Your task to perform on an android device: Open calendar and show me the third week of next month Image 0: 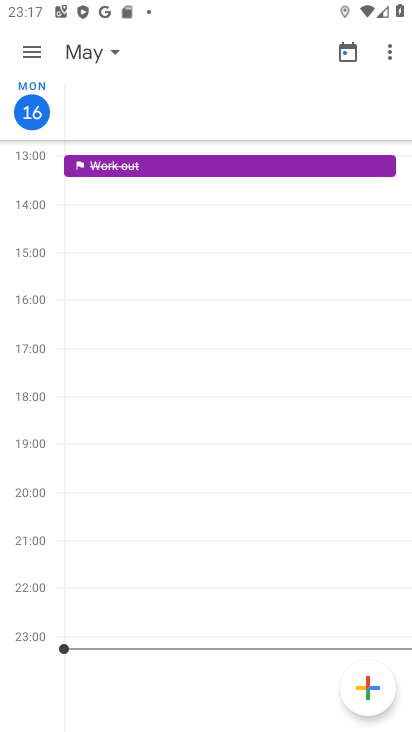
Step 0: press home button
Your task to perform on an android device: Open calendar and show me the third week of next month Image 1: 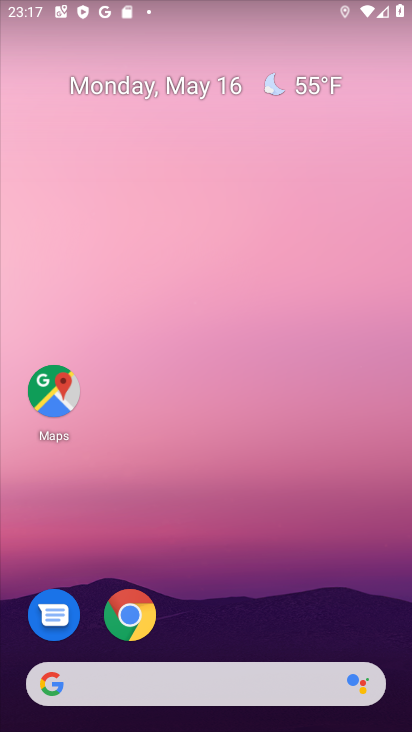
Step 1: drag from (202, 643) to (117, 43)
Your task to perform on an android device: Open calendar and show me the third week of next month Image 2: 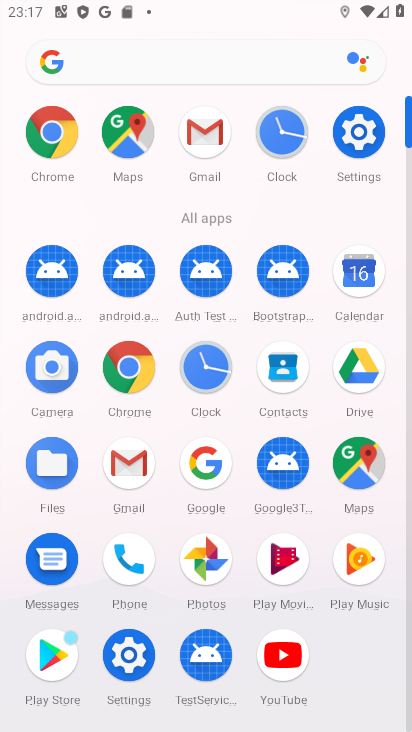
Step 2: click (341, 286)
Your task to perform on an android device: Open calendar and show me the third week of next month Image 3: 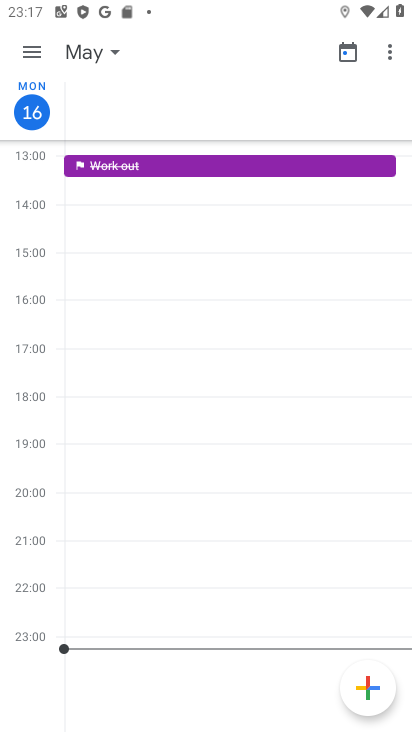
Step 3: click (345, 52)
Your task to perform on an android device: Open calendar and show me the third week of next month Image 4: 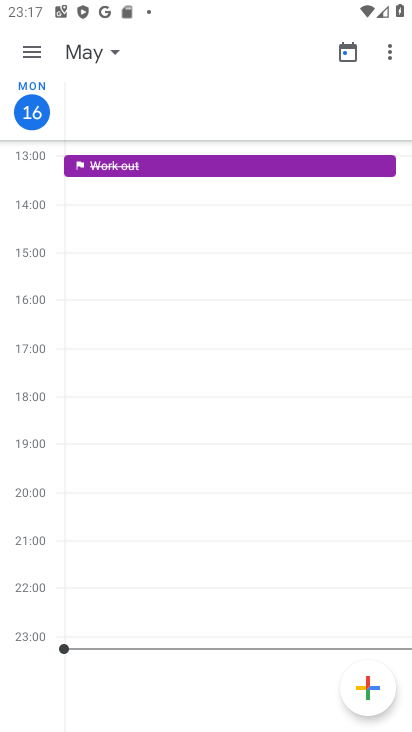
Step 4: click (20, 53)
Your task to perform on an android device: Open calendar and show me the third week of next month Image 5: 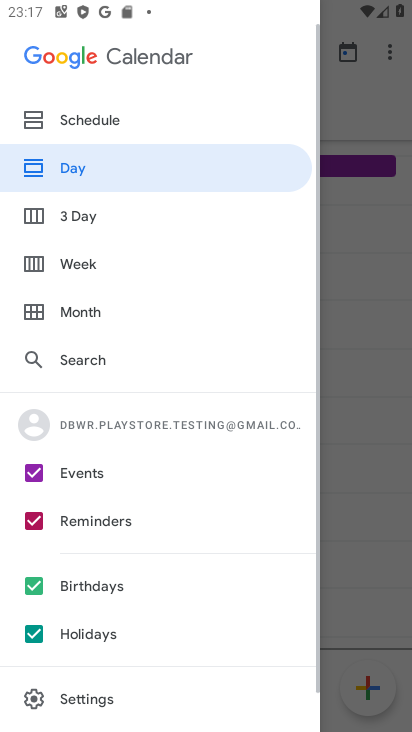
Step 5: click (88, 257)
Your task to perform on an android device: Open calendar and show me the third week of next month Image 6: 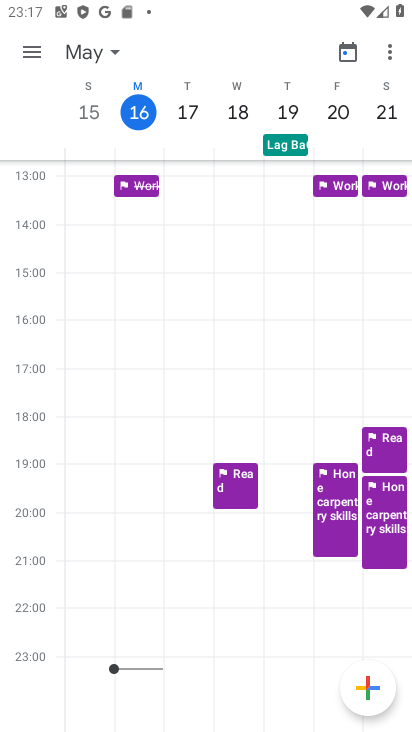
Step 6: task complete